Your task to perform on an android device: Open settings on Google Maps Image 0: 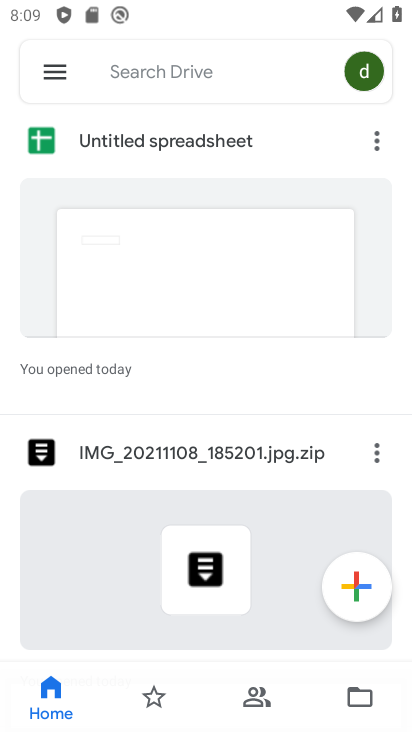
Step 0: press home button
Your task to perform on an android device: Open settings on Google Maps Image 1: 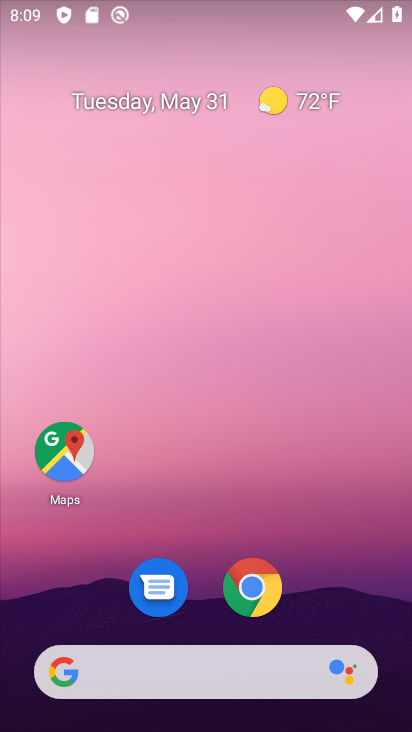
Step 1: click (62, 435)
Your task to perform on an android device: Open settings on Google Maps Image 2: 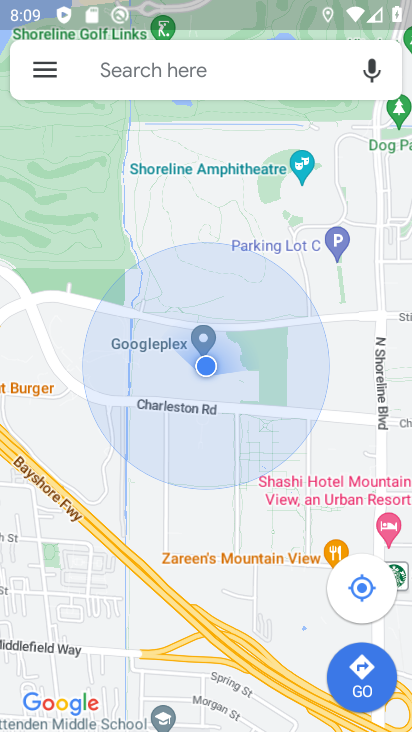
Step 2: click (42, 74)
Your task to perform on an android device: Open settings on Google Maps Image 3: 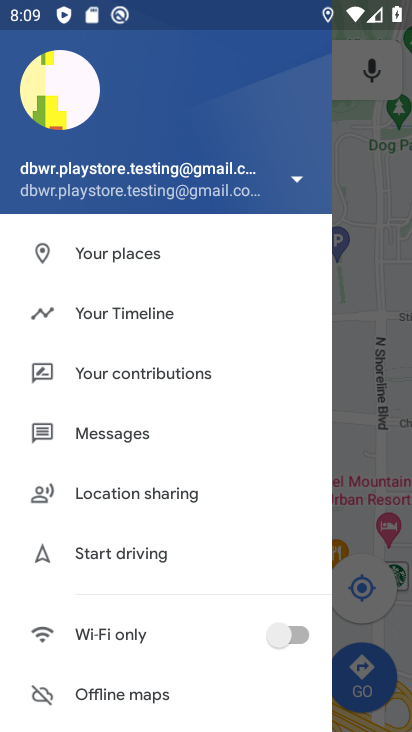
Step 3: drag from (116, 634) to (165, 230)
Your task to perform on an android device: Open settings on Google Maps Image 4: 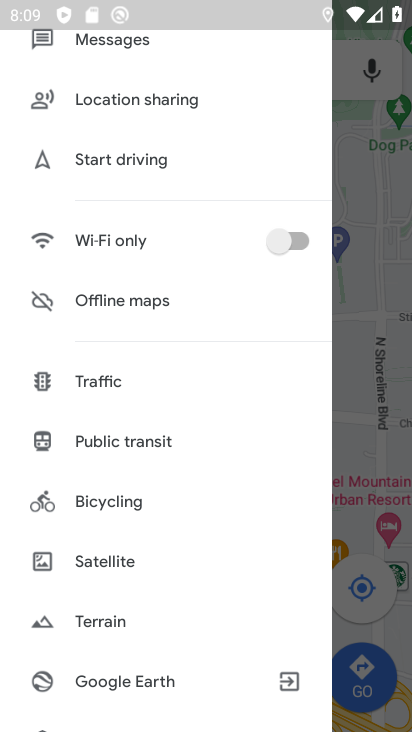
Step 4: drag from (90, 648) to (154, 136)
Your task to perform on an android device: Open settings on Google Maps Image 5: 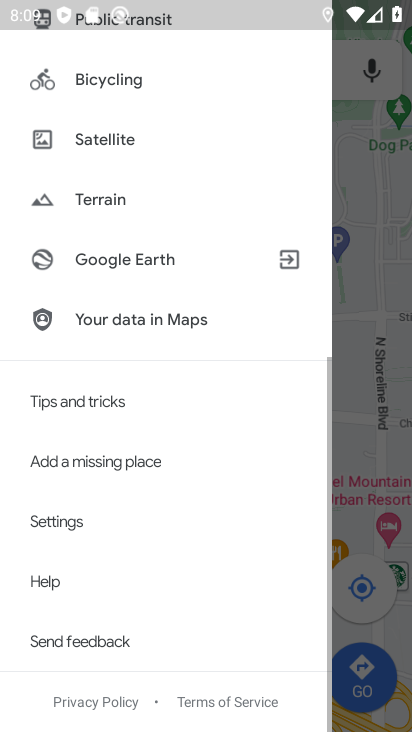
Step 5: click (131, 534)
Your task to perform on an android device: Open settings on Google Maps Image 6: 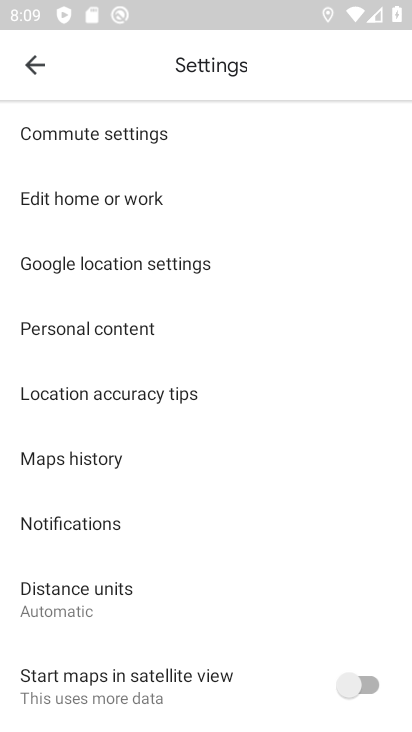
Step 6: task complete